Your task to perform on an android device: Go to sound settings Image 0: 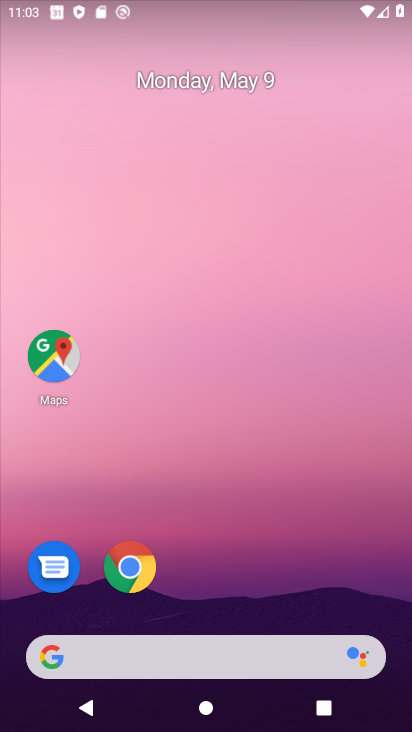
Step 0: drag from (339, 609) to (240, 58)
Your task to perform on an android device: Go to sound settings Image 1: 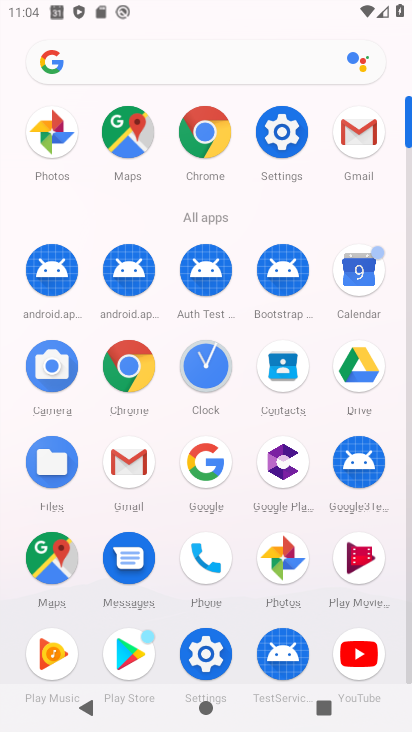
Step 1: click (208, 661)
Your task to perform on an android device: Go to sound settings Image 2: 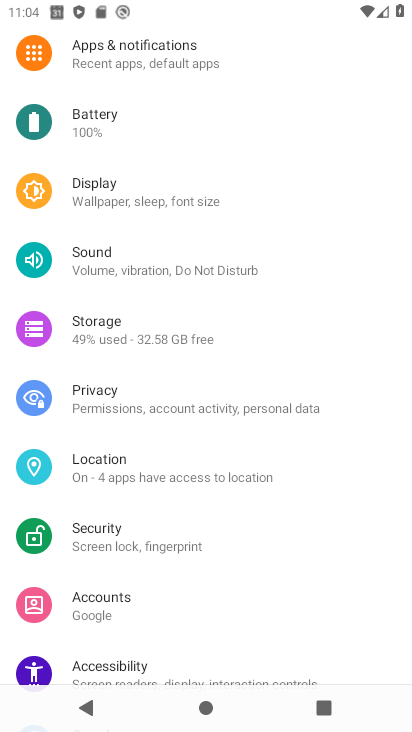
Step 2: click (126, 256)
Your task to perform on an android device: Go to sound settings Image 3: 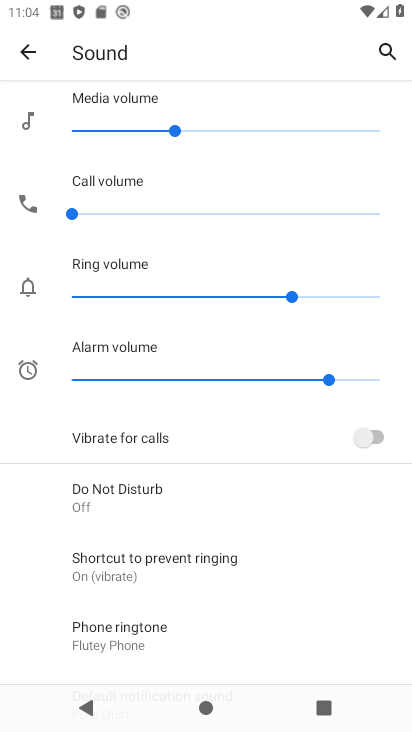
Step 3: task complete